Your task to perform on an android device: change the clock display to digital Image 0: 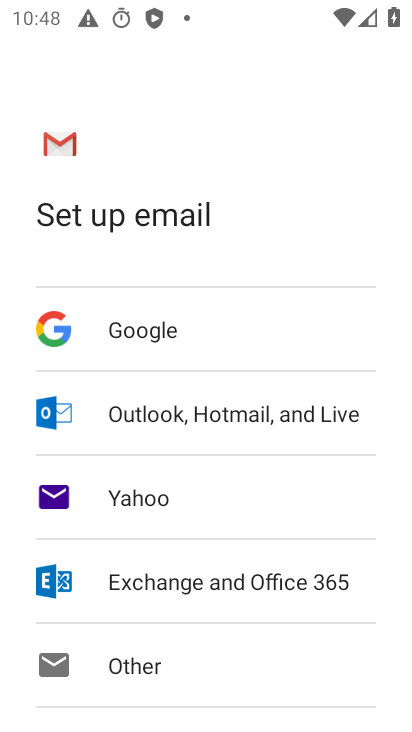
Step 0: press home button
Your task to perform on an android device: change the clock display to digital Image 1: 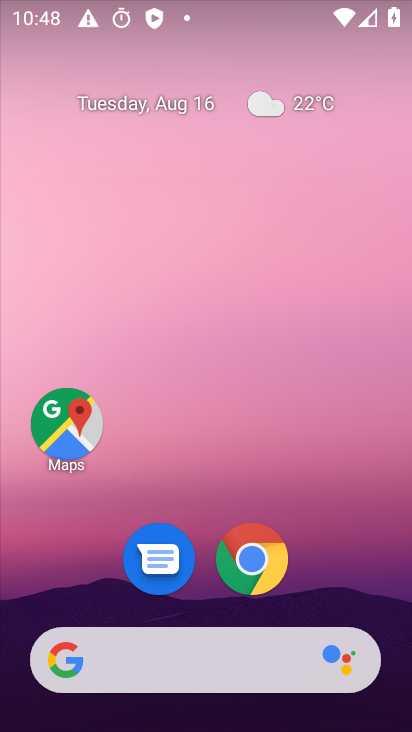
Step 1: drag from (196, 462) to (240, 131)
Your task to perform on an android device: change the clock display to digital Image 2: 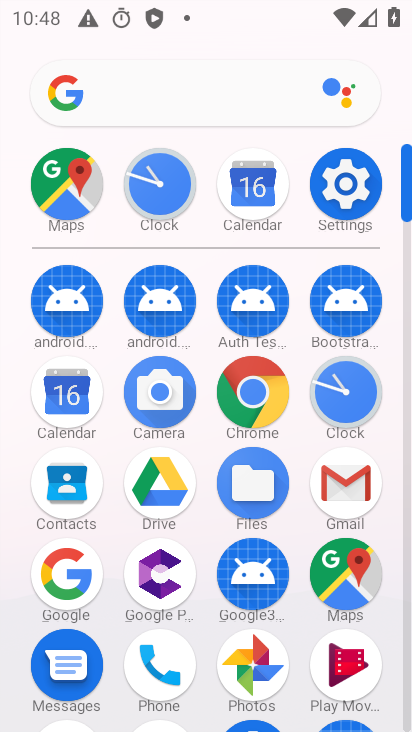
Step 2: click (336, 406)
Your task to perform on an android device: change the clock display to digital Image 3: 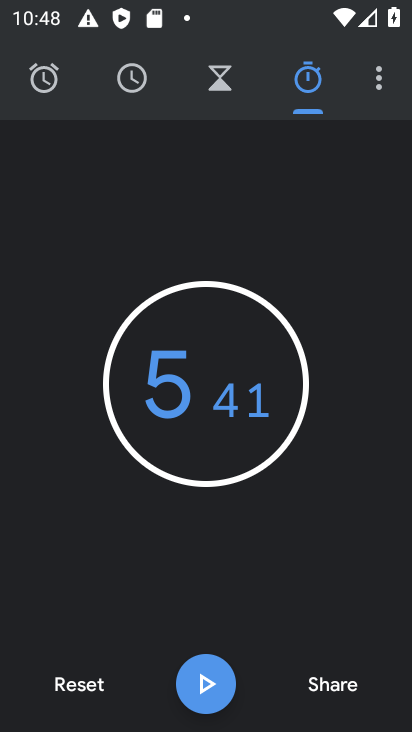
Step 3: click (382, 82)
Your task to perform on an android device: change the clock display to digital Image 4: 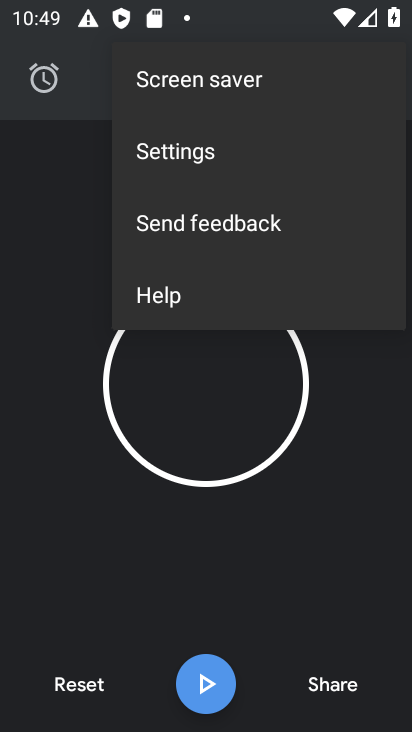
Step 4: click (169, 145)
Your task to perform on an android device: change the clock display to digital Image 5: 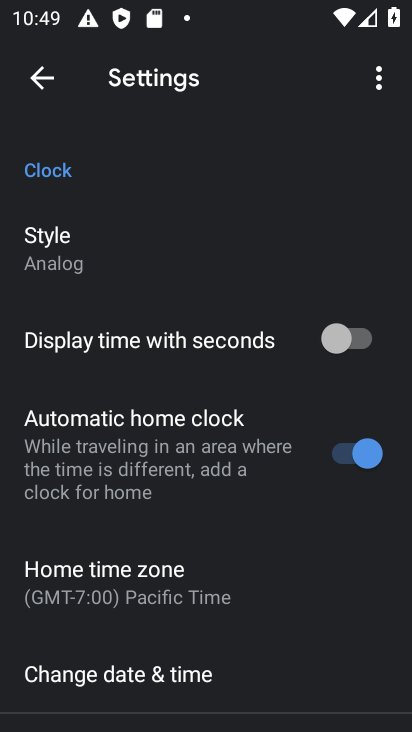
Step 5: click (48, 236)
Your task to perform on an android device: change the clock display to digital Image 6: 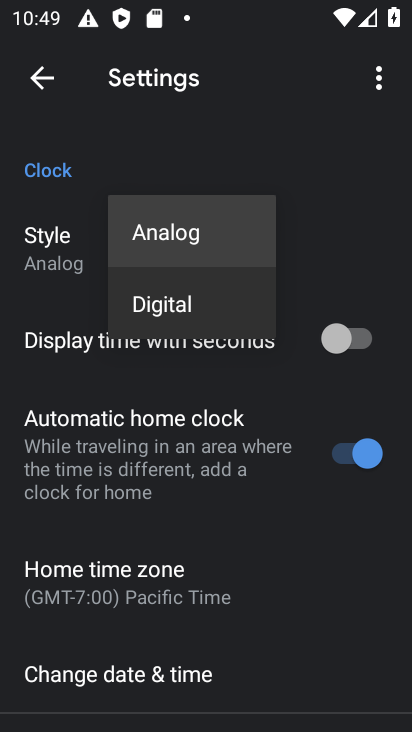
Step 6: click (159, 322)
Your task to perform on an android device: change the clock display to digital Image 7: 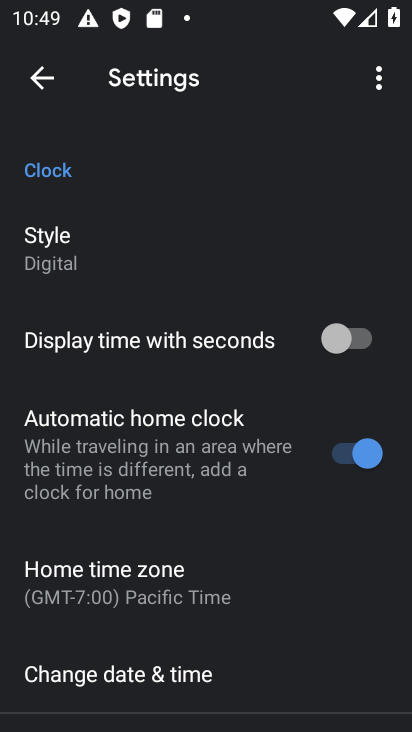
Step 7: task complete